Your task to perform on an android device: View the shopping cart on amazon. Add "logitech g pro" to the cart on amazon, then select checkout. Image 0: 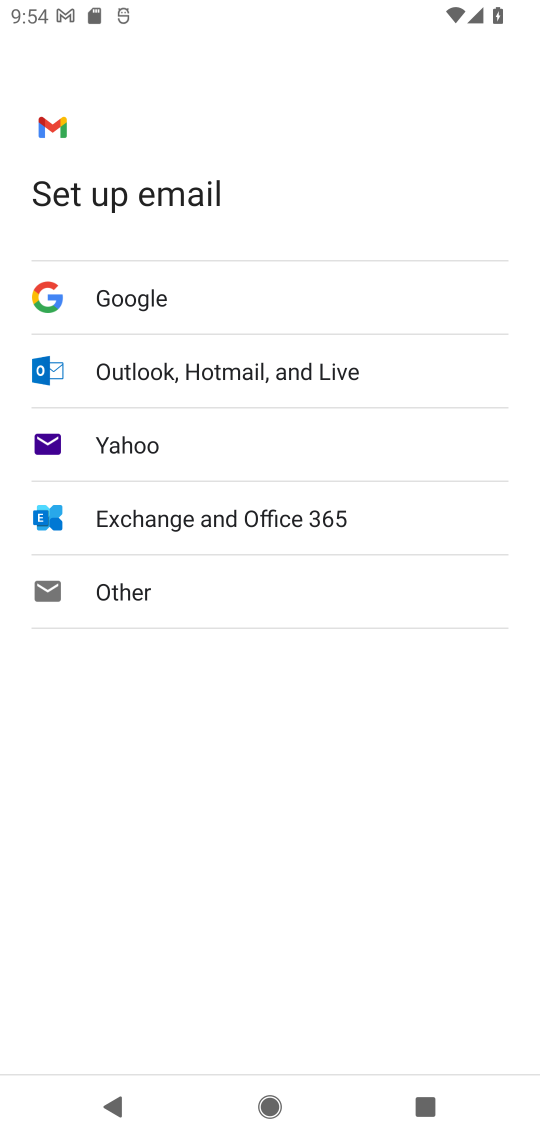
Step 0: press home button
Your task to perform on an android device: View the shopping cart on amazon. Add "logitech g pro" to the cart on amazon, then select checkout. Image 1: 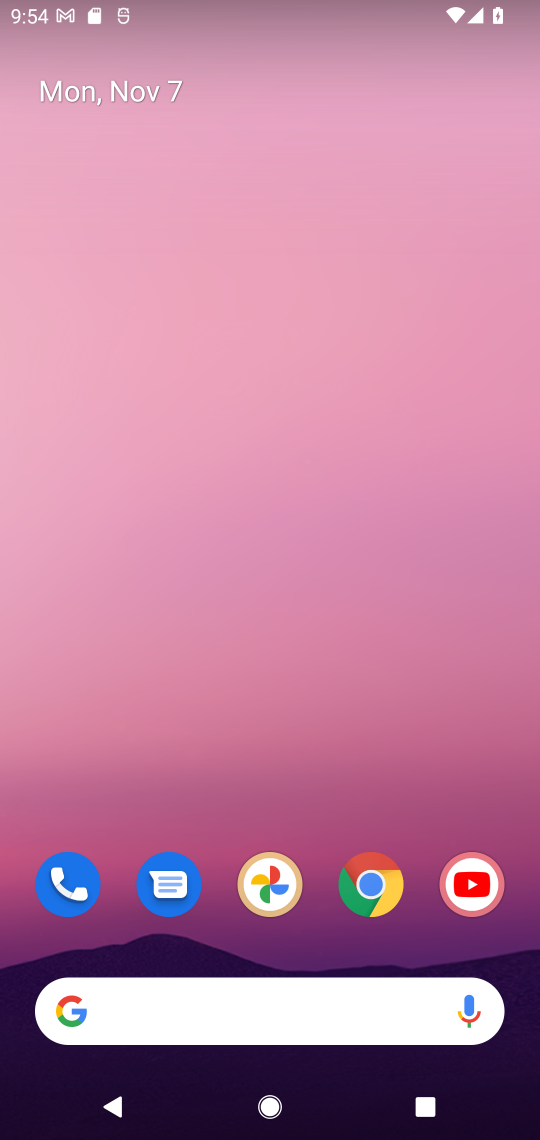
Step 1: click (370, 878)
Your task to perform on an android device: View the shopping cart on amazon. Add "logitech g pro" to the cart on amazon, then select checkout. Image 2: 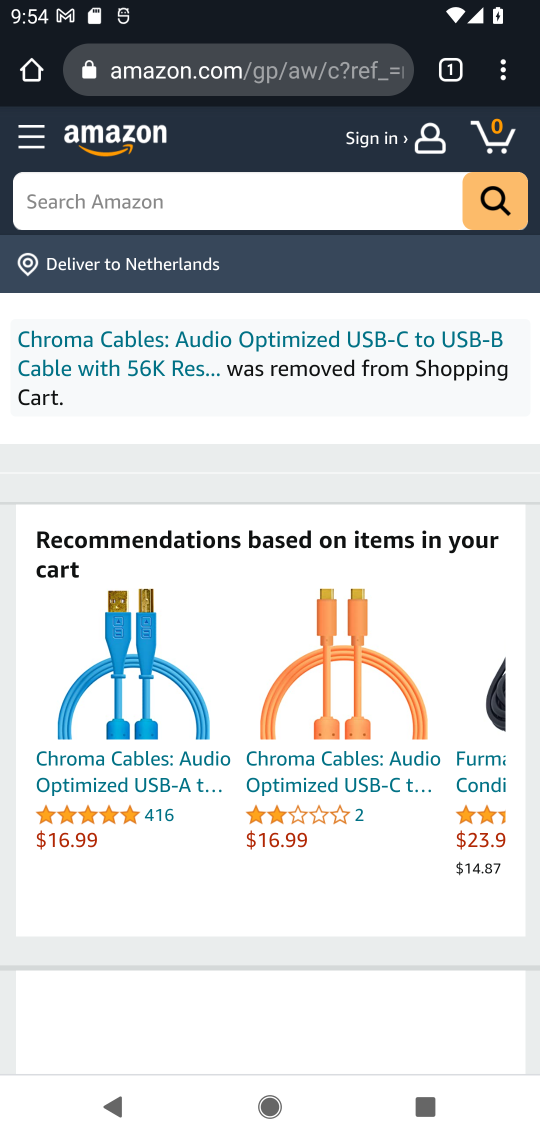
Step 2: click (395, 197)
Your task to perform on an android device: View the shopping cart on amazon. Add "logitech g pro" to the cart on amazon, then select checkout. Image 3: 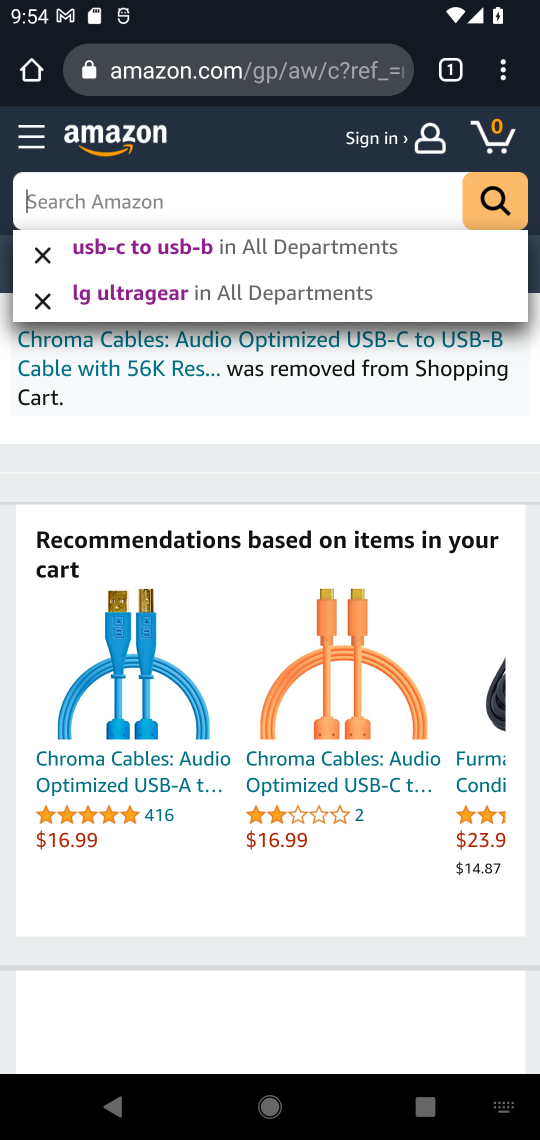
Step 3: type "logitech g pro"
Your task to perform on an android device: View the shopping cart on amazon. Add "logitech g pro" to the cart on amazon, then select checkout. Image 4: 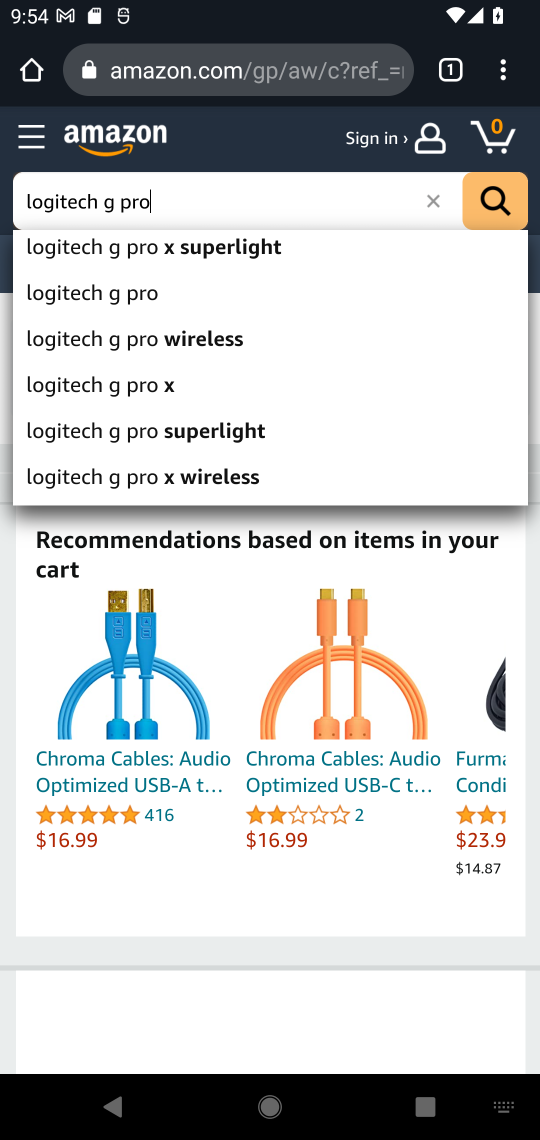
Step 4: click (144, 299)
Your task to perform on an android device: View the shopping cart on amazon. Add "logitech g pro" to the cart on amazon, then select checkout. Image 5: 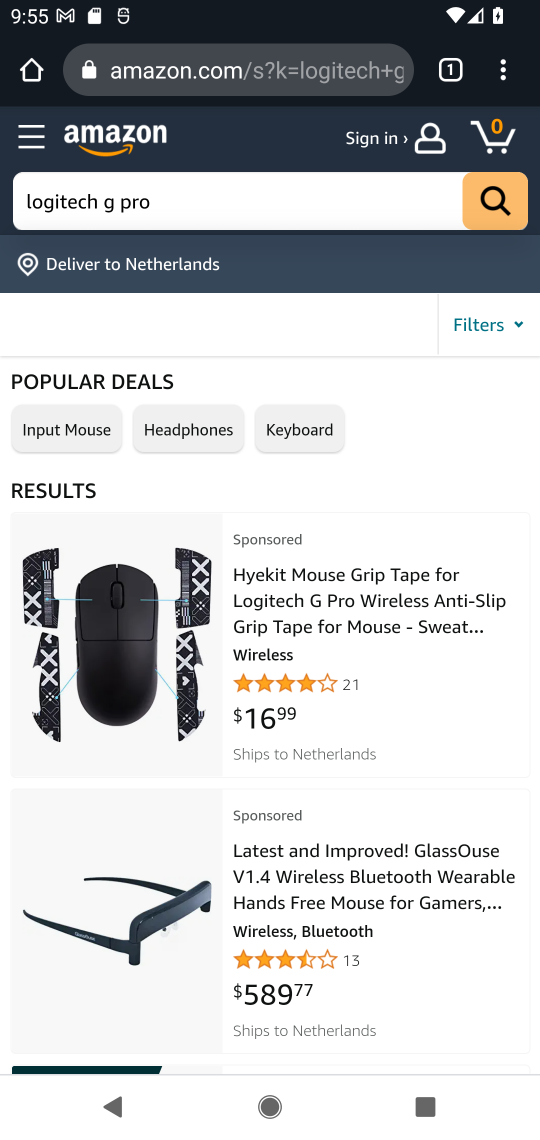
Step 5: click (107, 630)
Your task to perform on an android device: View the shopping cart on amazon. Add "logitech g pro" to the cart on amazon, then select checkout. Image 6: 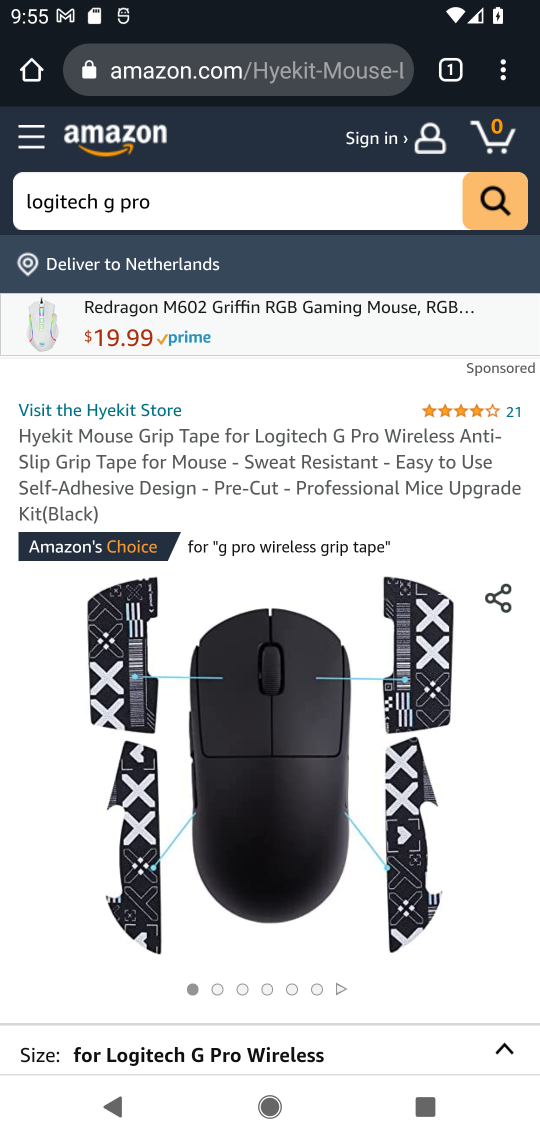
Step 6: drag from (374, 824) to (369, 311)
Your task to perform on an android device: View the shopping cart on amazon. Add "logitech g pro" to the cart on amazon, then select checkout. Image 7: 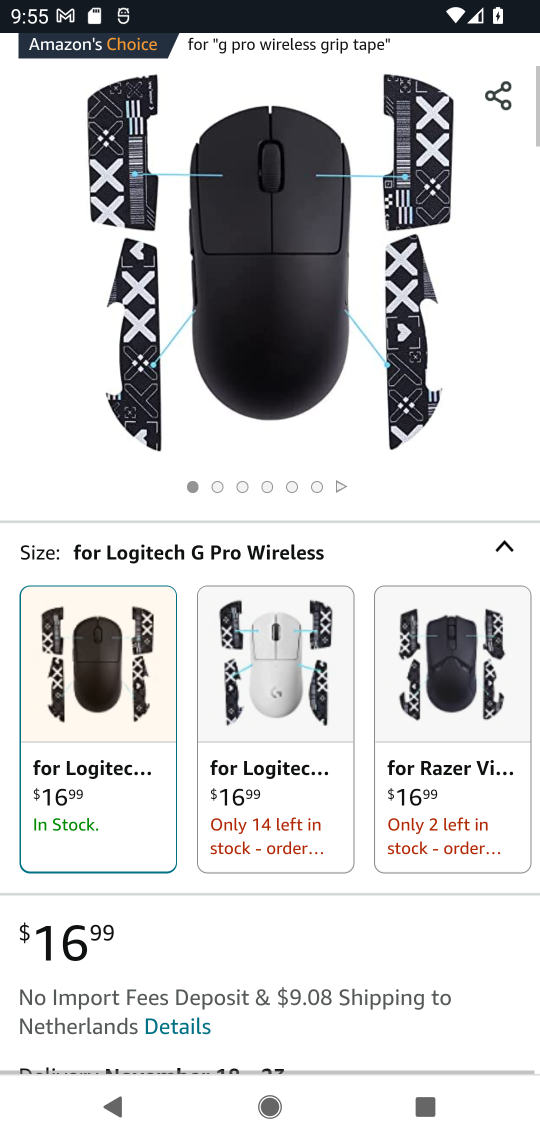
Step 7: drag from (404, 497) to (414, 340)
Your task to perform on an android device: View the shopping cart on amazon. Add "logitech g pro" to the cart on amazon, then select checkout. Image 8: 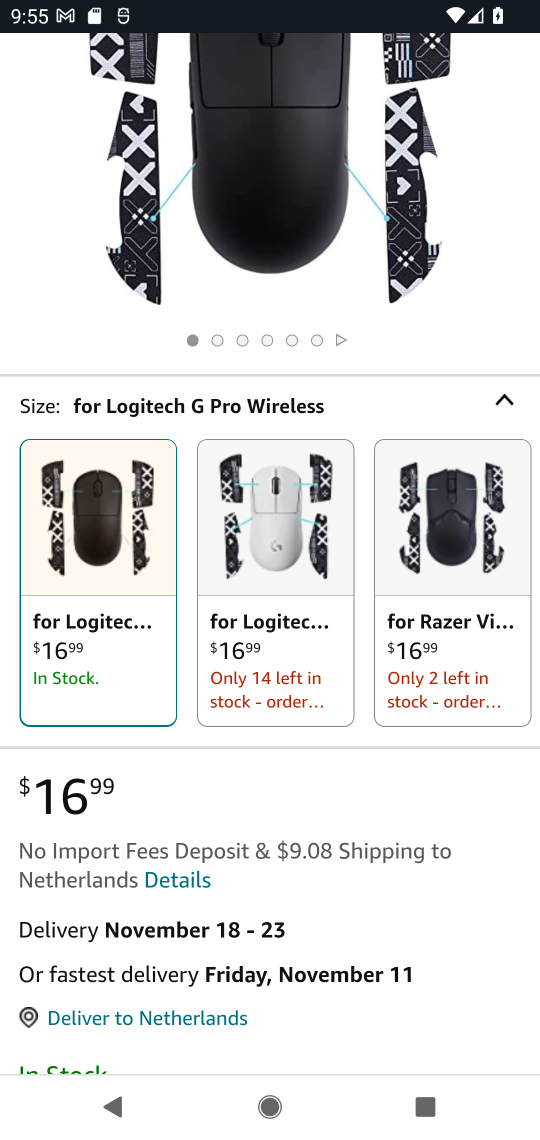
Step 8: drag from (452, 756) to (457, 421)
Your task to perform on an android device: View the shopping cart on amazon. Add "logitech g pro" to the cart on amazon, then select checkout. Image 9: 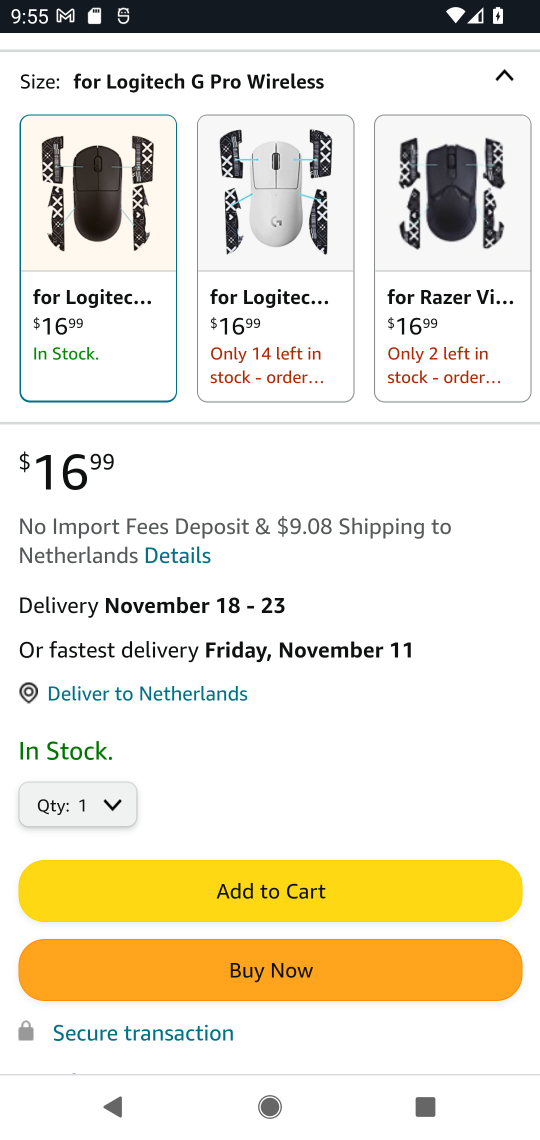
Step 9: click (299, 877)
Your task to perform on an android device: View the shopping cart on amazon. Add "logitech g pro" to the cart on amazon, then select checkout. Image 10: 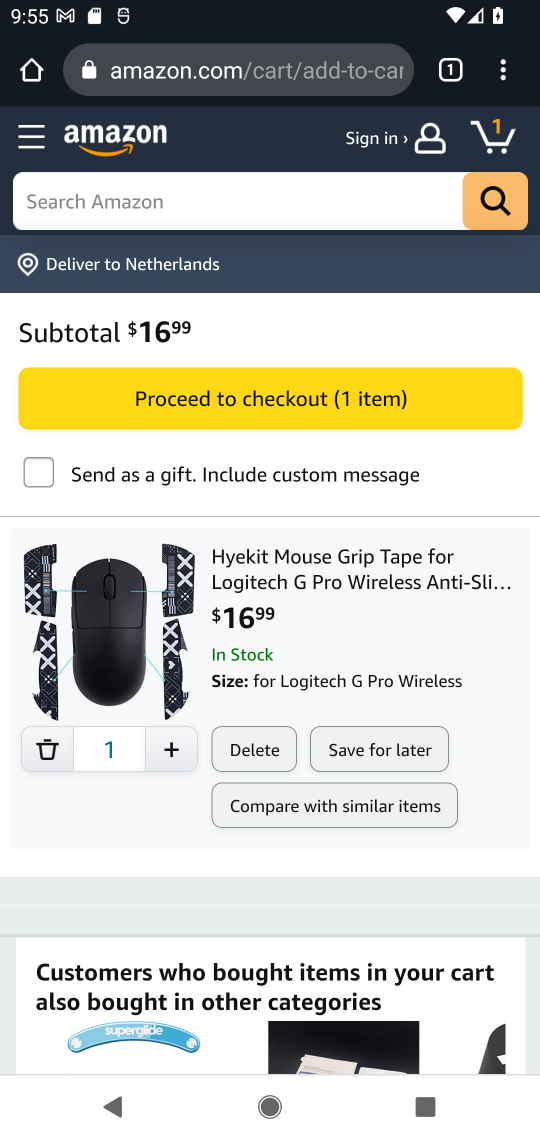
Step 10: click (287, 398)
Your task to perform on an android device: View the shopping cart on amazon. Add "logitech g pro" to the cart on amazon, then select checkout. Image 11: 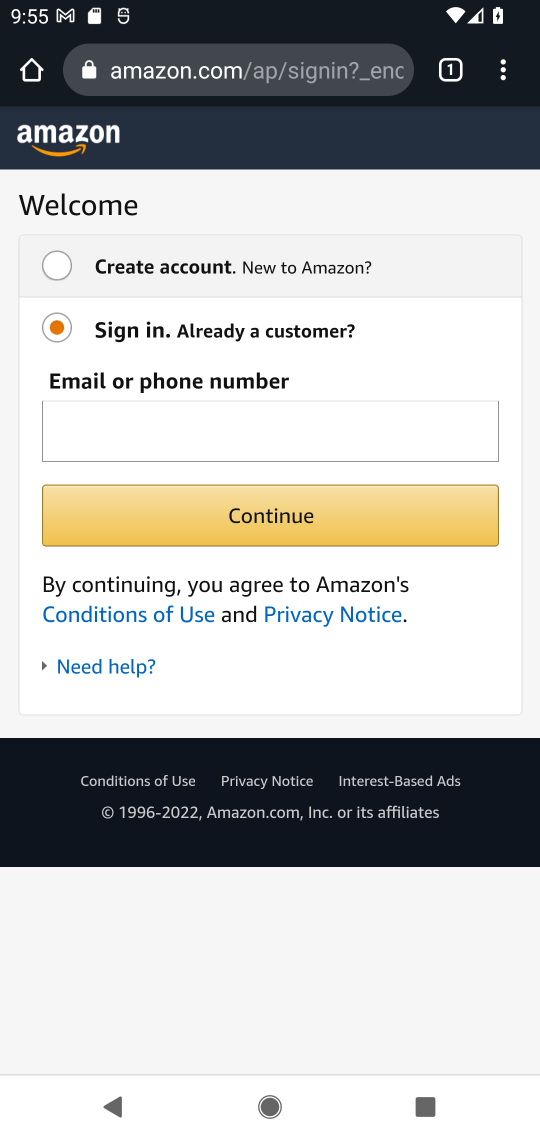
Step 11: task complete